Your task to perform on an android device: Turn off the flashlight Image 0: 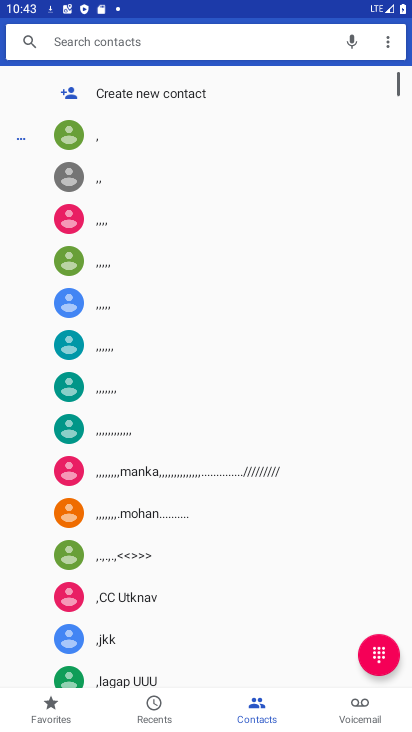
Step 0: press home button
Your task to perform on an android device: Turn off the flashlight Image 1: 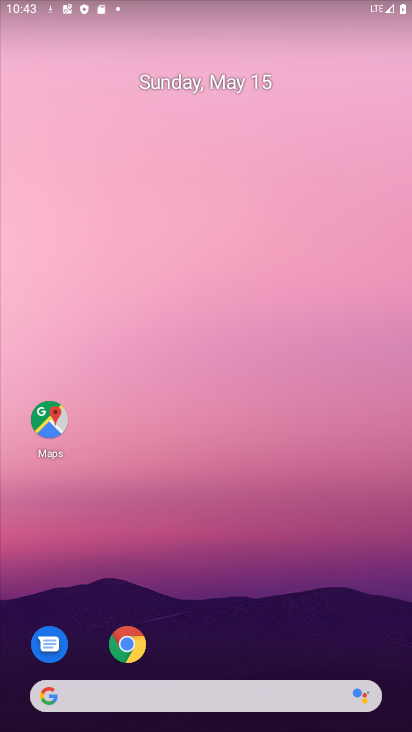
Step 1: drag from (266, 710) to (316, 147)
Your task to perform on an android device: Turn off the flashlight Image 2: 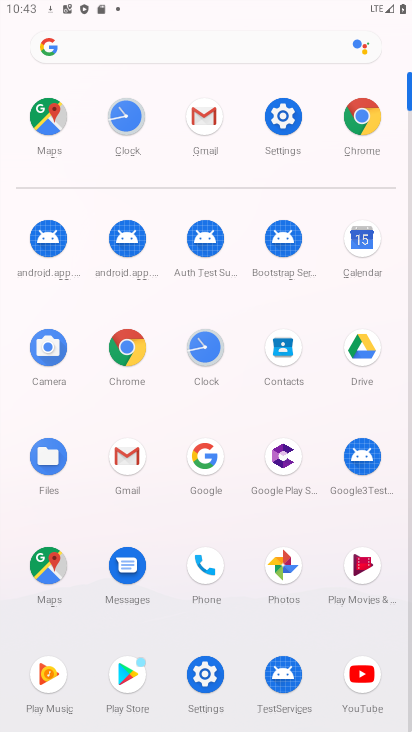
Step 2: click (197, 659)
Your task to perform on an android device: Turn off the flashlight Image 3: 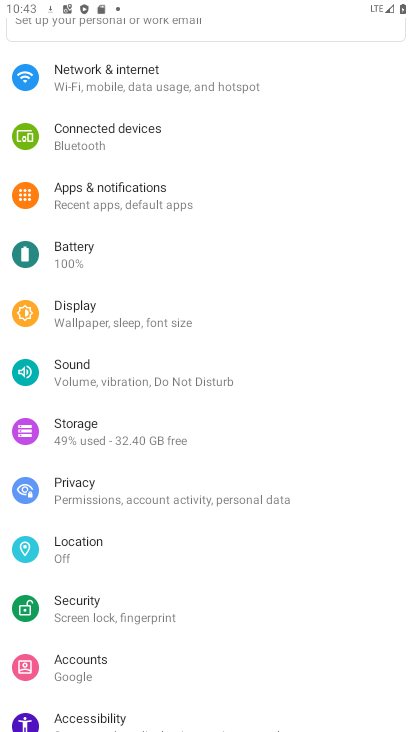
Step 3: drag from (135, 101) to (96, 328)
Your task to perform on an android device: Turn off the flashlight Image 4: 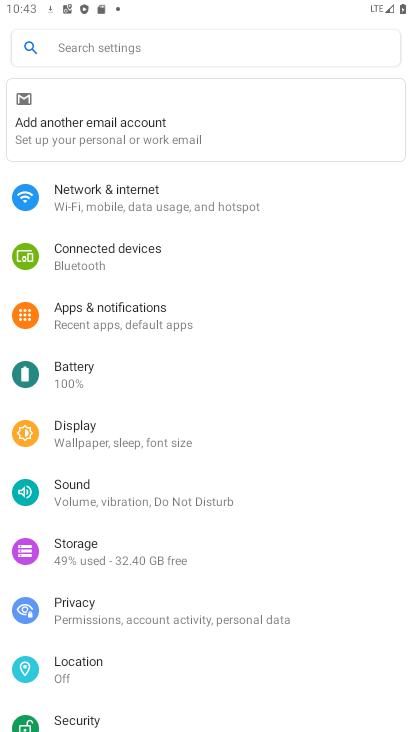
Step 4: click (81, 40)
Your task to perform on an android device: Turn off the flashlight Image 5: 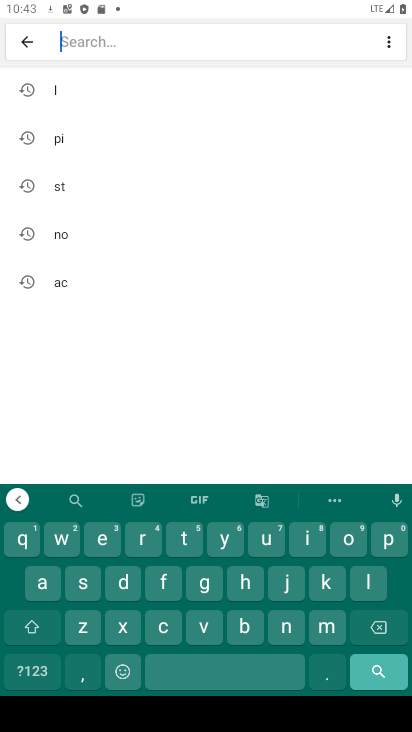
Step 5: click (158, 590)
Your task to perform on an android device: Turn off the flashlight Image 6: 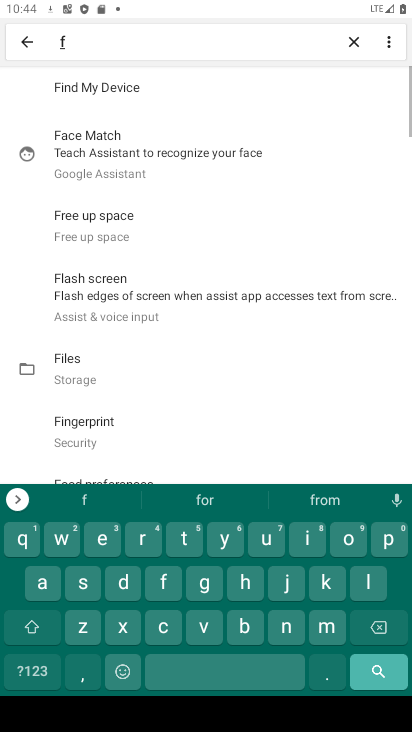
Step 6: click (375, 582)
Your task to perform on an android device: Turn off the flashlight Image 7: 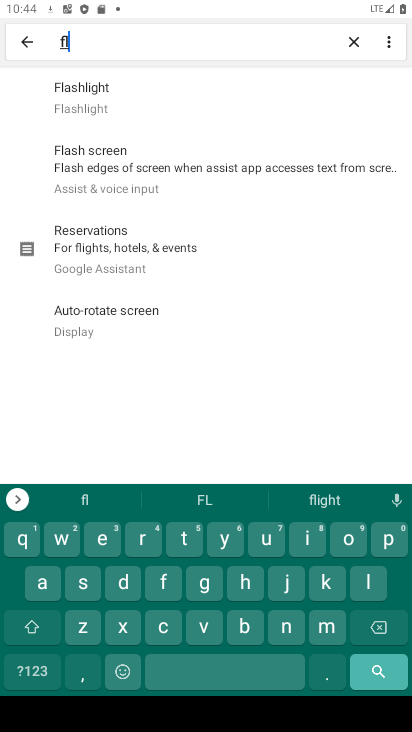
Step 7: click (115, 120)
Your task to perform on an android device: Turn off the flashlight Image 8: 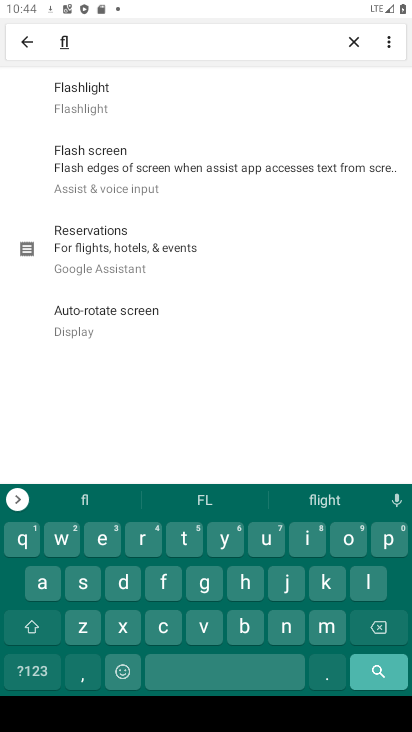
Step 8: task complete